Your task to perform on an android device: create a new album in the google photos Image 0: 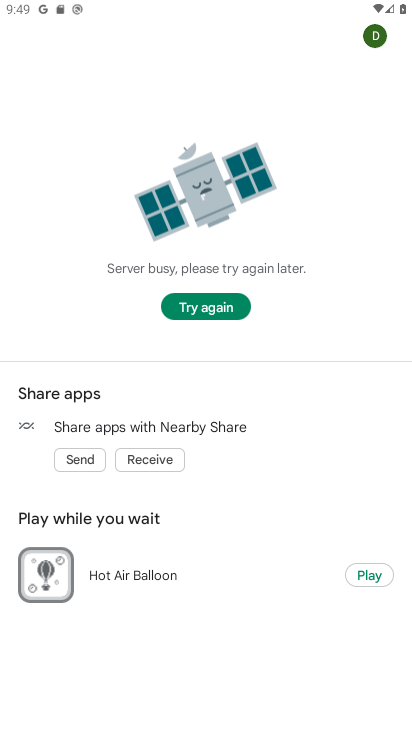
Step 0: press home button
Your task to perform on an android device: create a new album in the google photos Image 1: 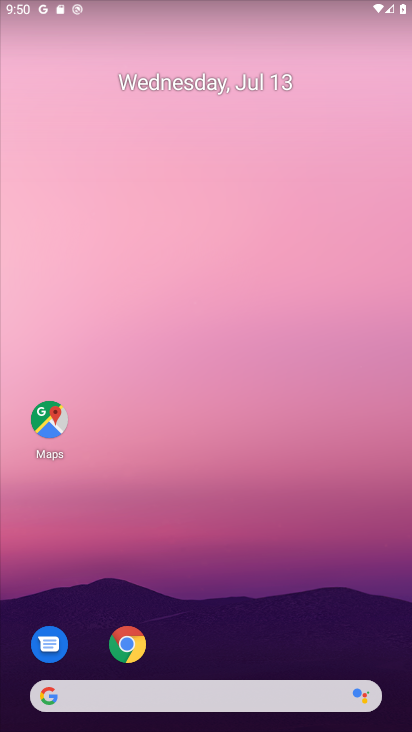
Step 1: drag from (193, 644) to (319, 71)
Your task to perform on an android device: create a new album in the google photos Image 2: 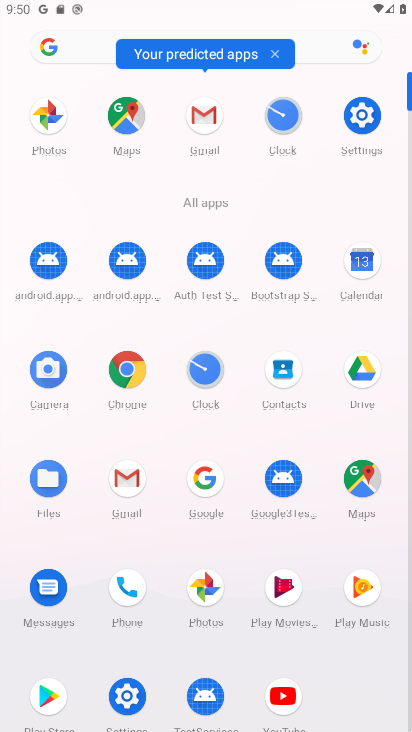
Step 2: click (203, 589)
Your task to perform on an android device: create a new album in the google photos Image 3: 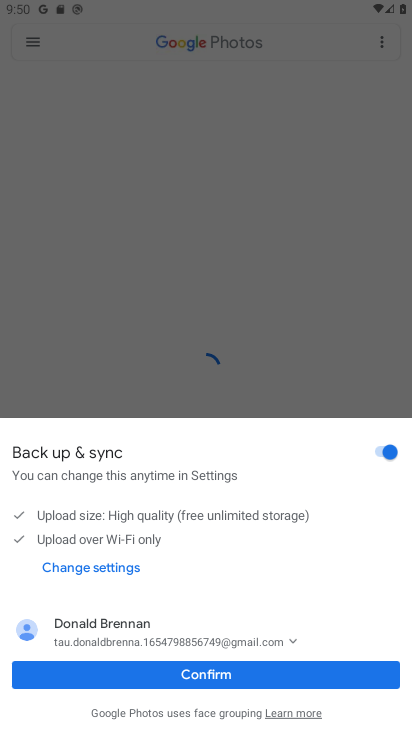
Step 3: click (224, 677)
Your task to perform on an android device: create a new album in the google photos Image 4: 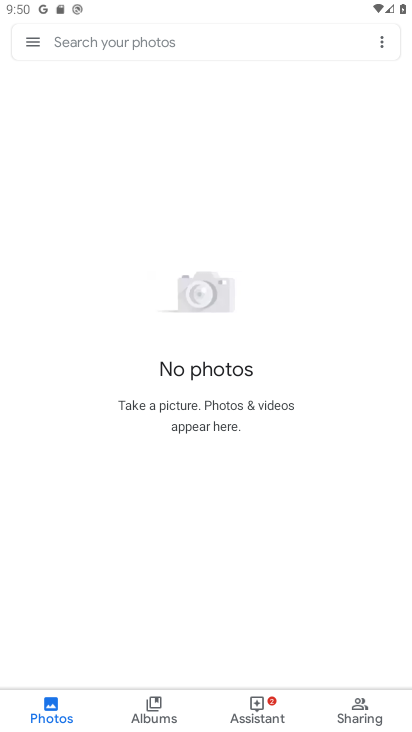
Step 4: click (385, 44)
Your task to perform on an android device: create a new album in the google photos Image 5: 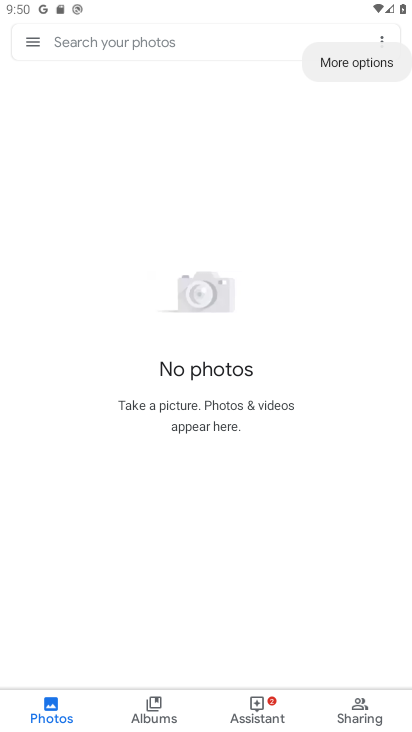
Step 5: click (385, 39)
Your task to perform on an android device: create a new album in the google photos Image 6: 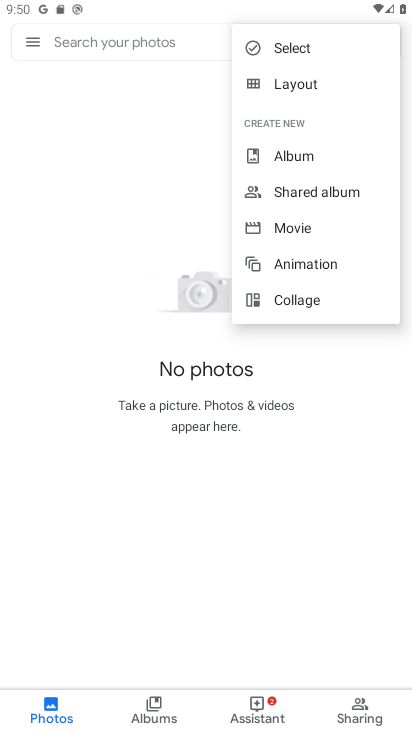
Step 6: click (307, 159)
Your task to perform on an android device: create a new album in the google photos Image 7: 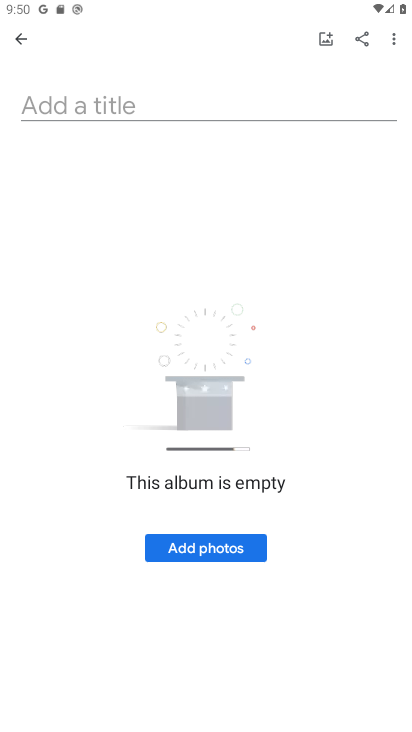
Step 7: click (92, 102)
Your task to perform on an android device: create a new album in the google photos Image 8: 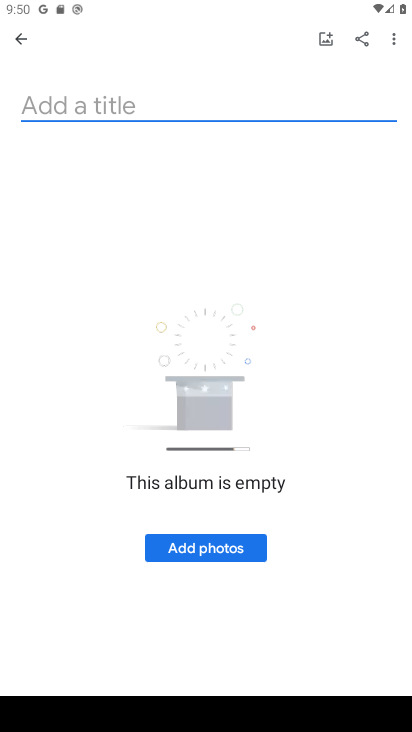
Step 8: type "stuff"
Your task to perform on an android device: create a new album in the google photos Image 9: 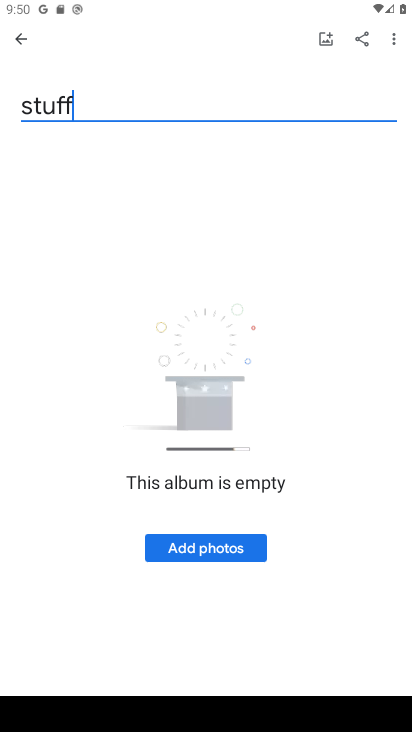
Step 9: press enter
Your task to perform on an android device: create a new album in the google photos Image 10: 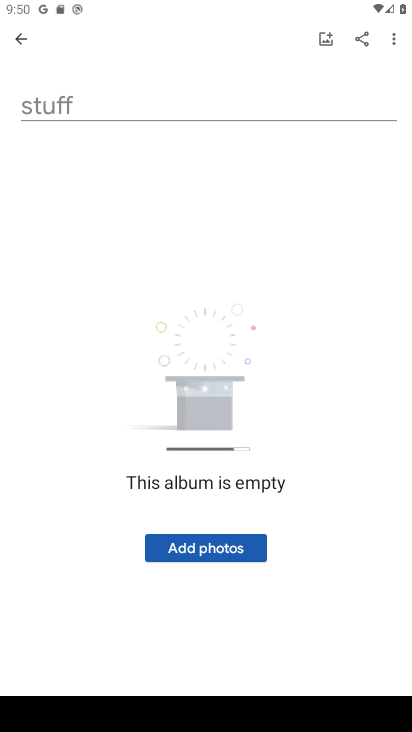
Step 10: click (395, 37)
Your task to perform on an android device: create a new album in the google photos Image 11: 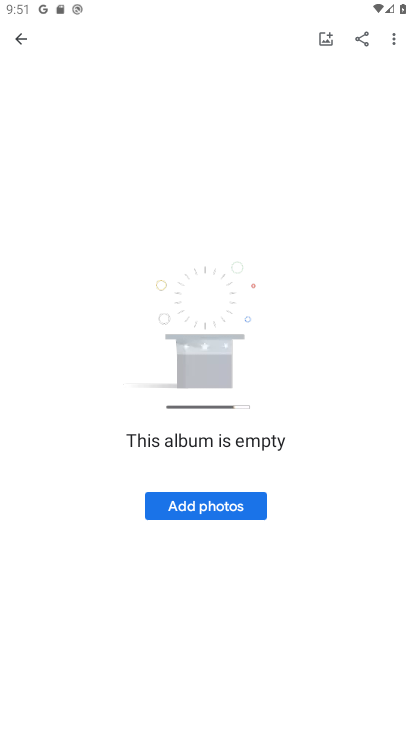
Step 11: task complete